Your task to perform on an android device: Open the stopwatch Image 0: 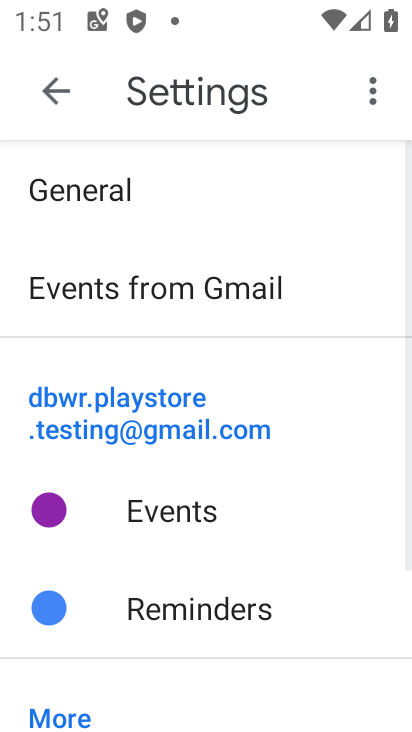
Step 0: press home button
Your task to perform on an android device: Open the stopwatch Image 1: 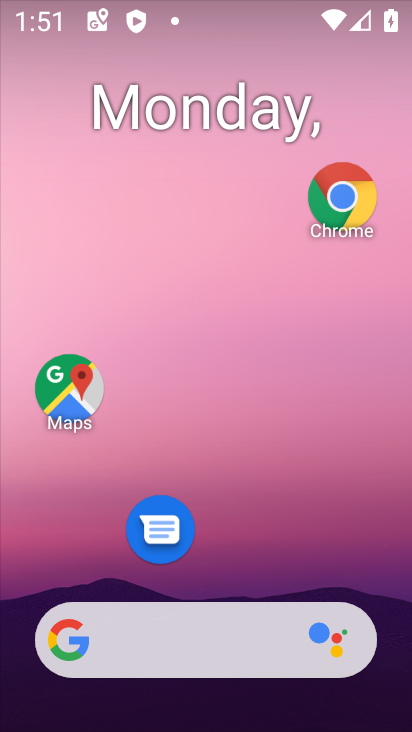
Step 1: drag from (220, 584) to (214, 4)
Your task to perform on an android device: Open the stopwatch Image 2: 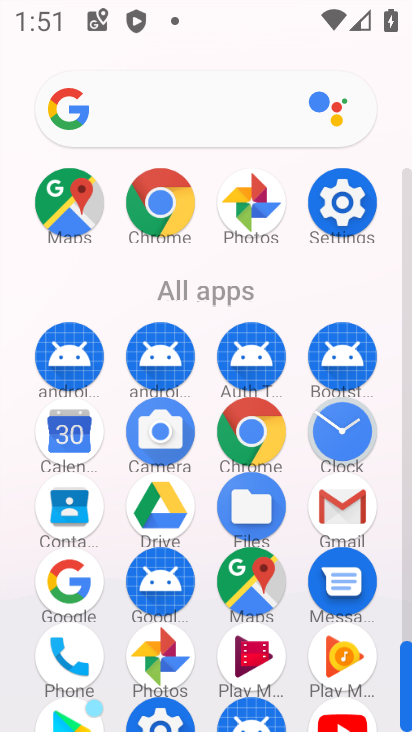
Step 2: click (331, 428)
Your task to perform on an android device: Open the stopwatch Image 3: 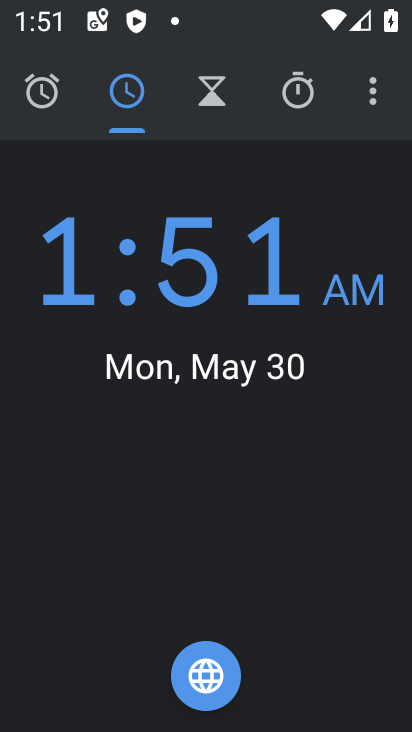
Step 3: click (268, 101)
Your task to perform on an android device: Open the stopwatch Image 4: 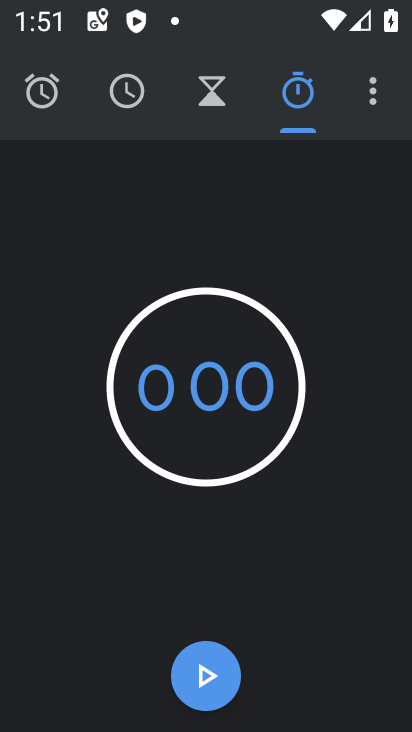
Step 4: task complete